Your task to perform on an android device: Open ESPN.com Image 0: 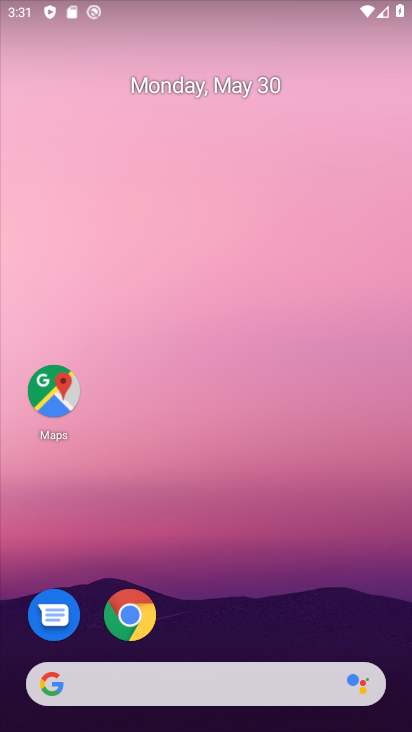
Step 0: click (128, 617)
Your task to perform on an android device: Open ESPN.com Image 1: 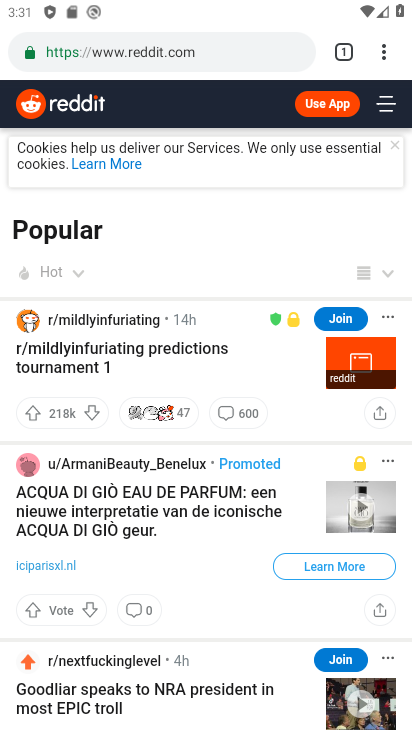
Step 1: click (247, 51)
Your task to perform on an android device: Open ESPN.com Image 2: 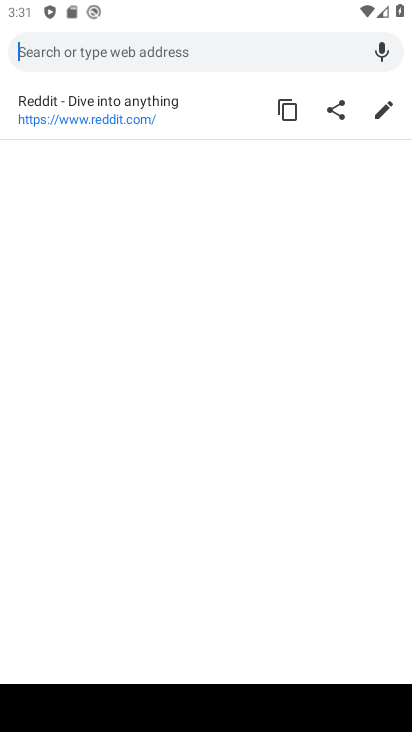
Step 2: type "ESPN.com"
Your task to perform on an android device: Open ESPN.com Image 3: 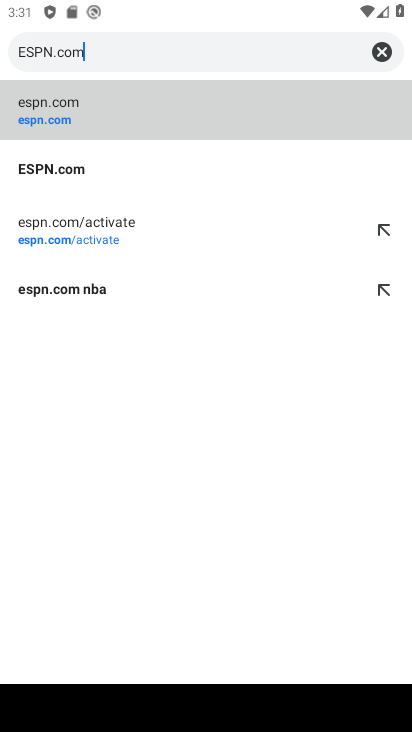
Step 3: click (75, 175)
Your task to perform on an android device: Open ESPN.com Image 4: 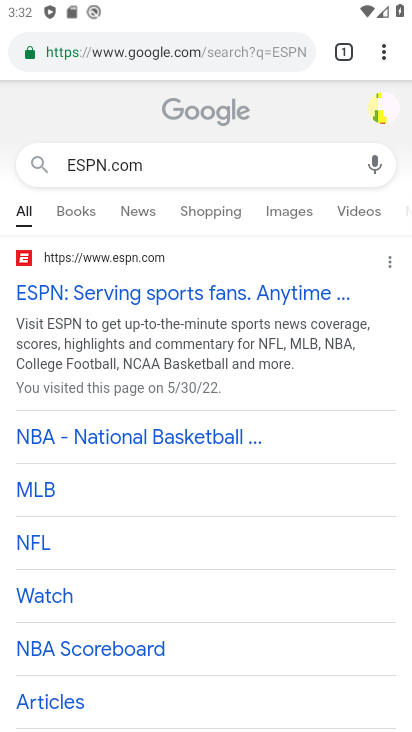
Step 4: click (135, 290)
Your task to perform on an android device: Open ESPN.com Image 5: 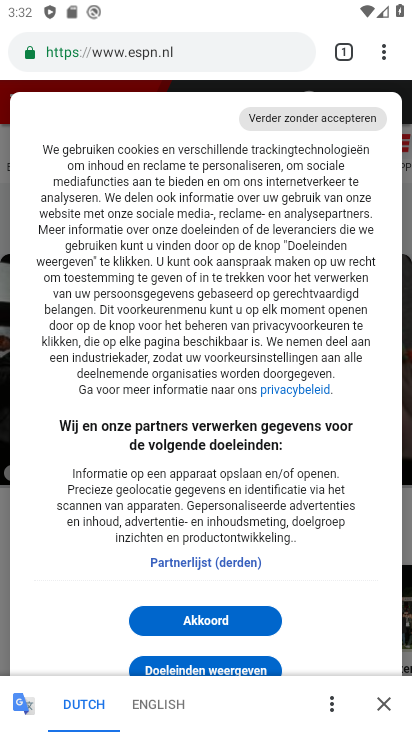
Step 5: task complete